Your task to perform on an android device: Do I have any events today? Image 0: 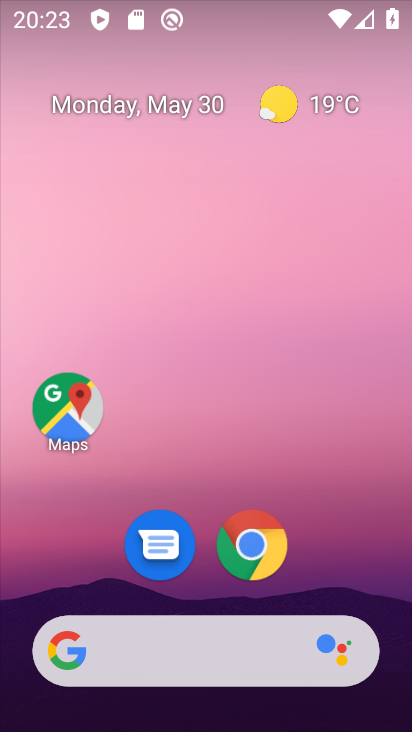
Step 0: click (194, 111)
Your task to perform on an android device: Do I have any events today? Image 1: 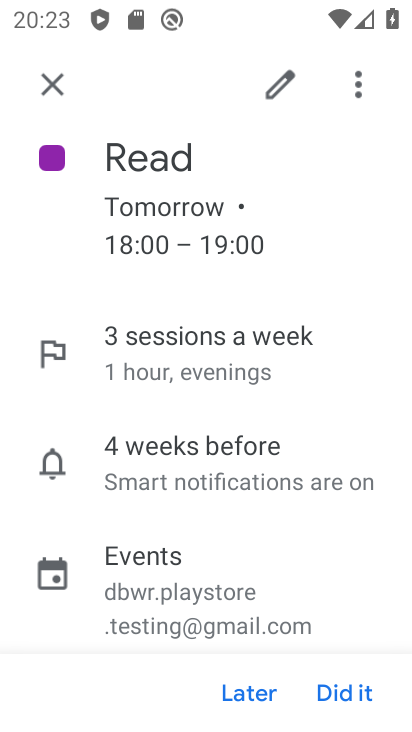
Step 1: click (56, 84)
Your task to perform on an android device: Do I have any events today? Image 2: 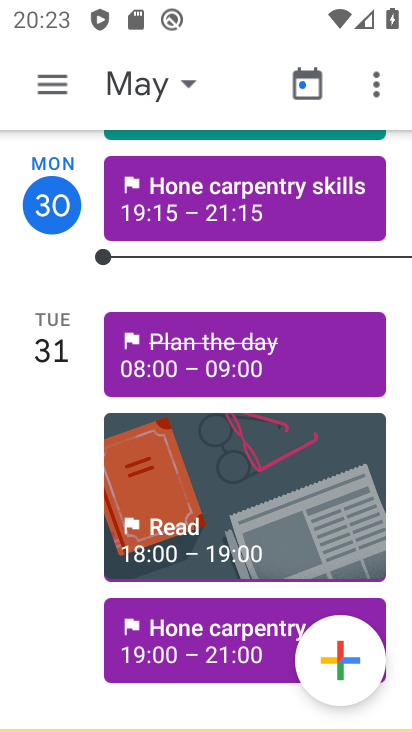
Step 2: click (53, 68)
Your task to perform on an android device: Do I have any events today? Image 3: 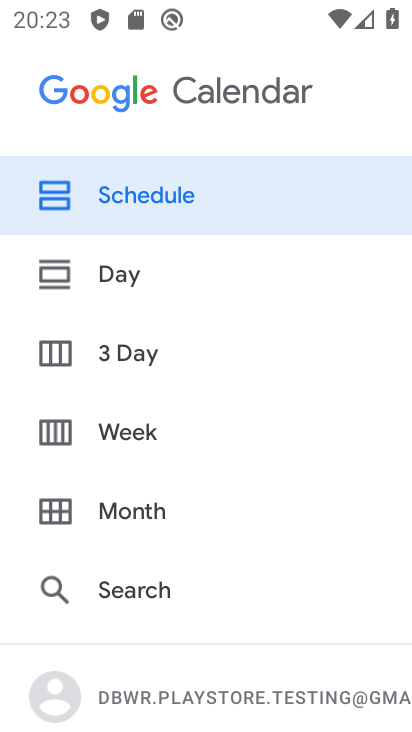
Step 3: drag from (202, 552) to (217, 238)
Your task to perform on an android device: Do I have any events today? Image 4: 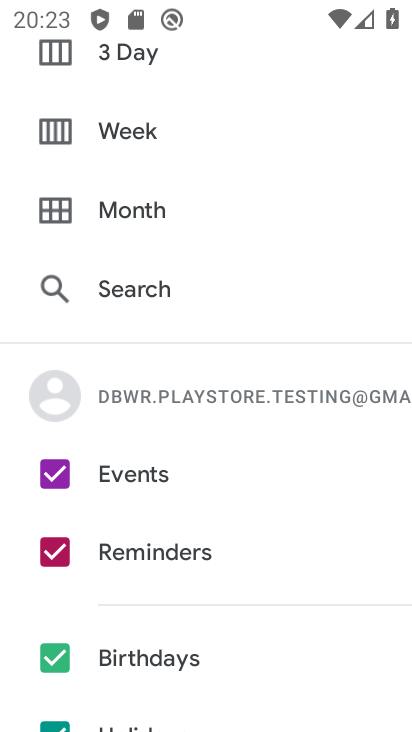
Step 4: click (60, 540)
Your task to perform on an android device: Do I have any events today? Image 5: 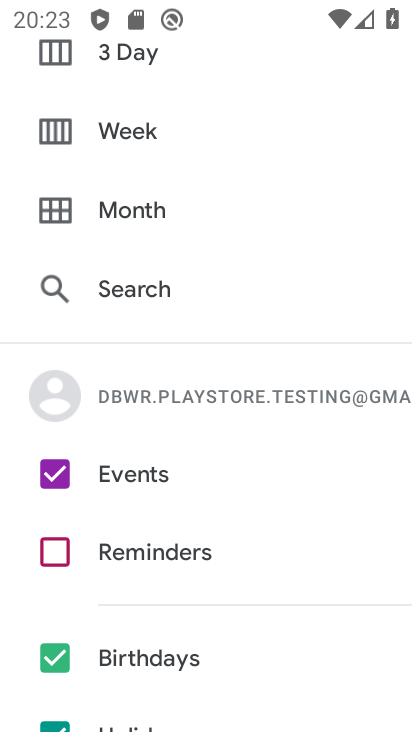
Step 5: click (59, 664)
Your task to perform on an android device: Do I have any events today? Image 6: 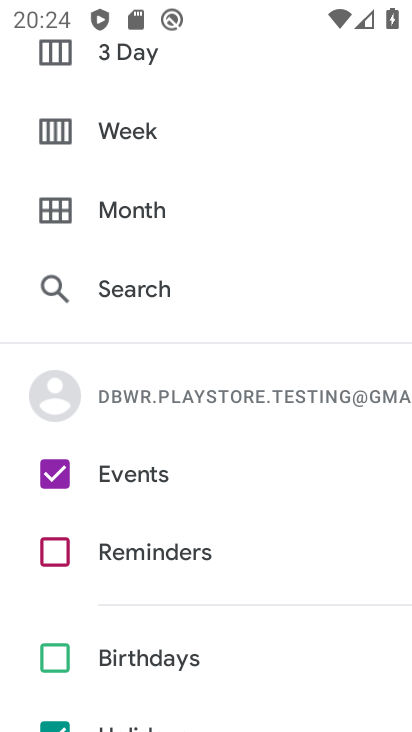
Step 6: click (61, 726)
Your task to perform on an android device: Do I have any events today? Image 7: 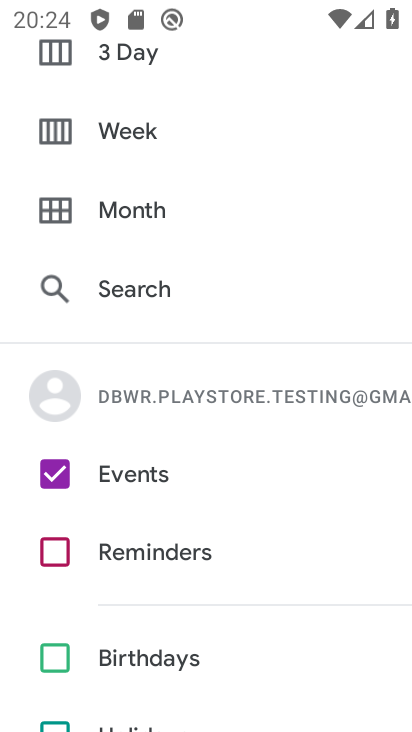
Step 7: drag from (268, 202) to (288, 478)
Your task to perform on an android device: Do I have any events today? Image 8: 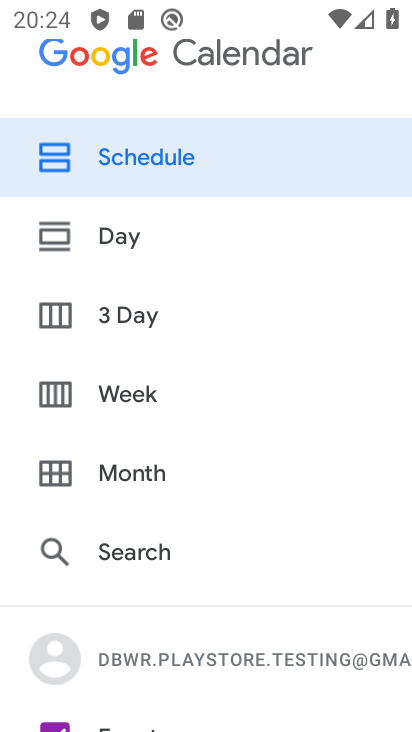
Step 8: click (211, 170)
Your task to perform on an android device: Do I have any events today? Image 9: 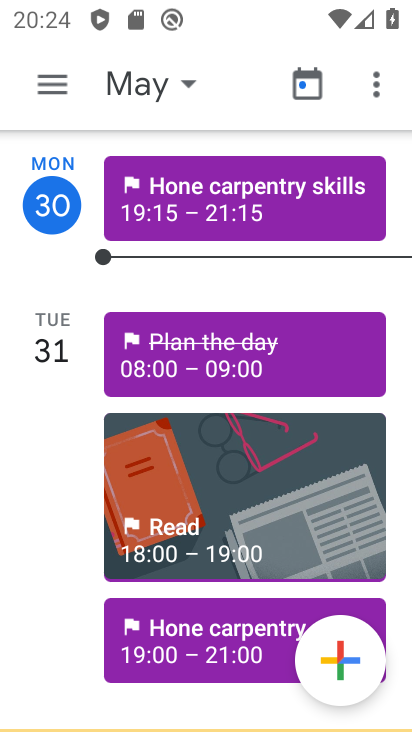
Step 9: task complete